Your task to perform on an android device: What is the recent news? Image 0: 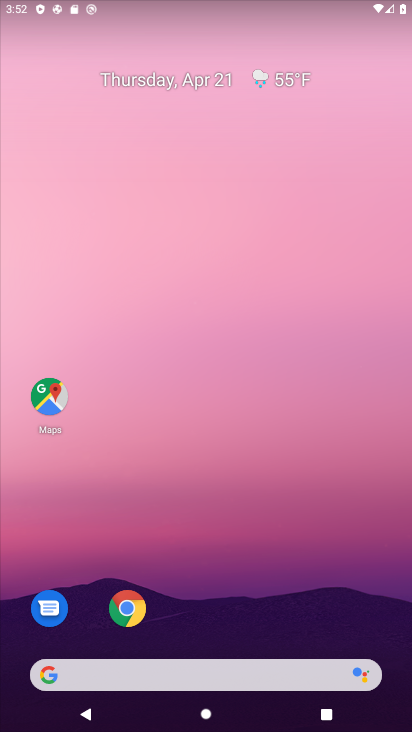
Step 0: drag from (274, 485) to (269, 90)
Your task to perform on an android device: What is the recent news? Image 1: 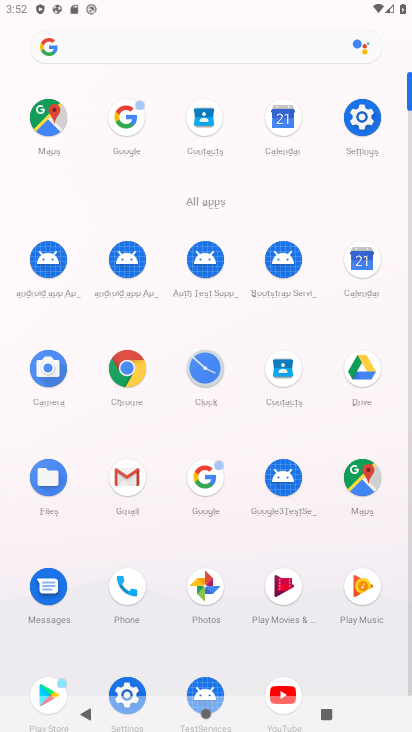
Step 1: click (209, 479)
Your task to perform on an android device: What is the recent news? Image 2: 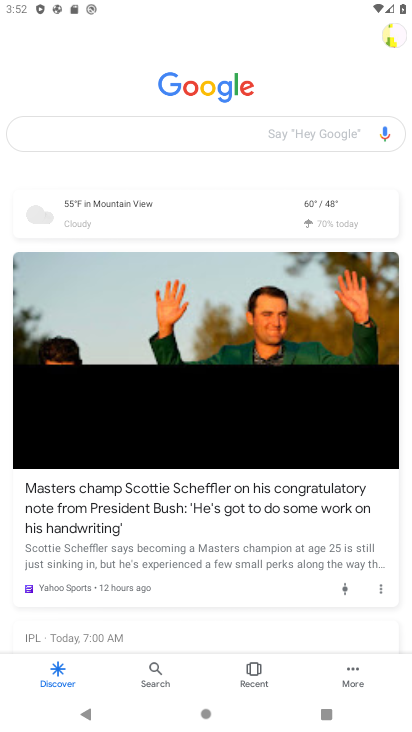
Step 2: click (251, 117)
Your task to perform on an android device: What is the recent news? Image 3: 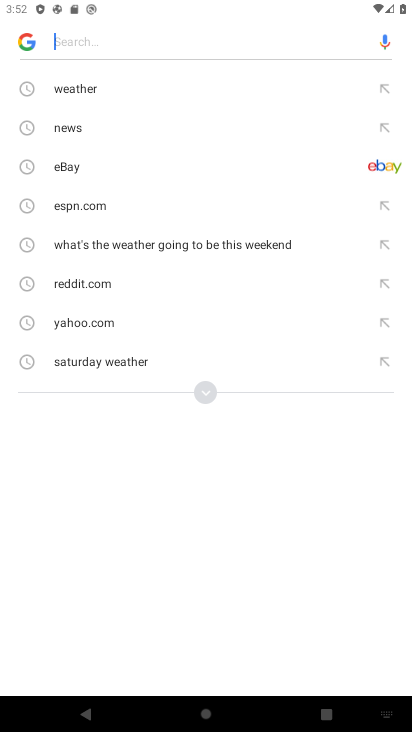
Step 3: click (235, 130)
Your task to perform on an android device: What is the recent news? Image 4: 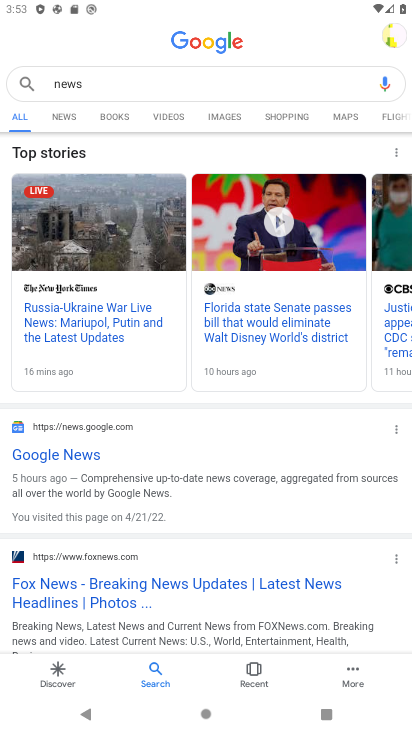
Step 4: click (62, 116)
Your task to perform on an android device: What is the recent news? Image 5: 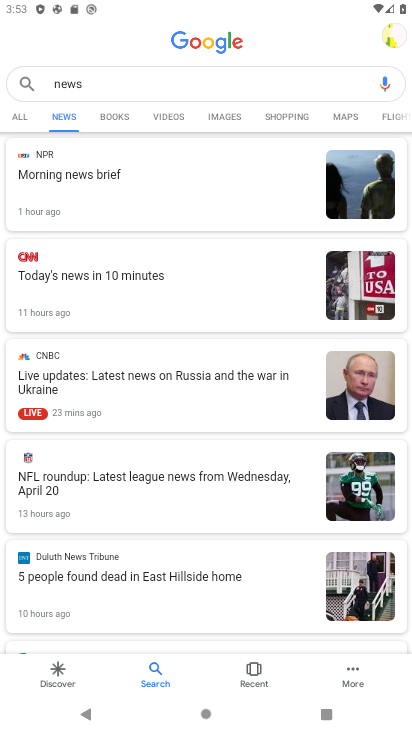
Step 5: task complete